Your task to perform on an android device: check google app version Image 0: 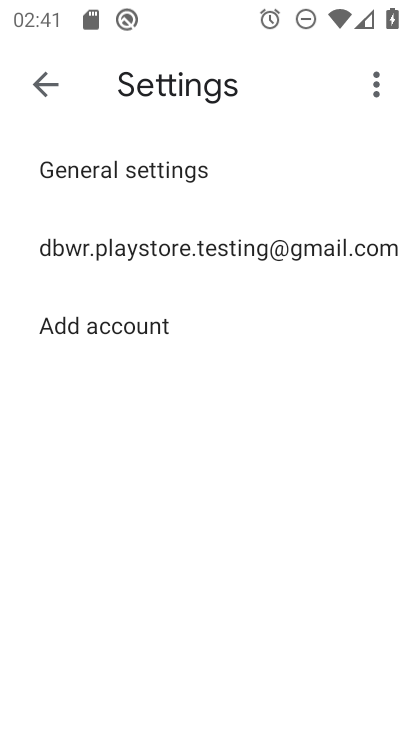
Step 0: press home button
Your task to perform on an android device: check google app version Image 1: 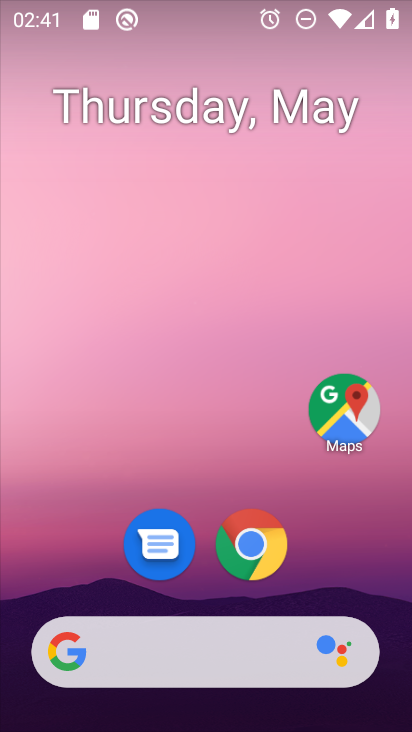
Step 1: drag from (364, 580) to (375, 244)
Your task to perform on an android device: check google app version Image 2: 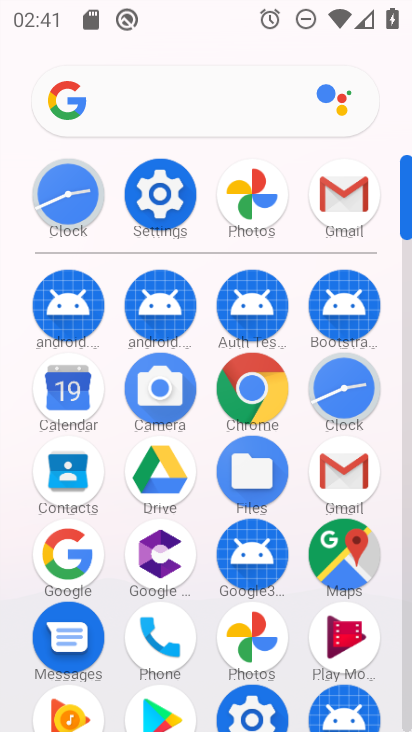
Step 2: drag from (385, 606) to (393, 556)
Your task to perform on an android device: check google app version Image 3: 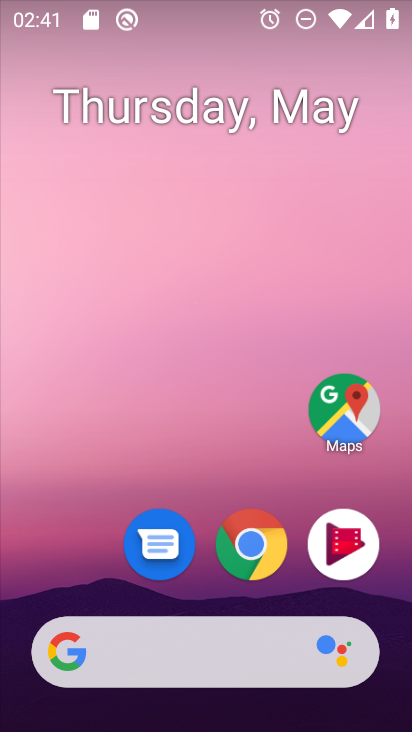
Step 3: drag from (277, 467) to (276, 90)
Your task to perform on an android device: check google app version Image 4: 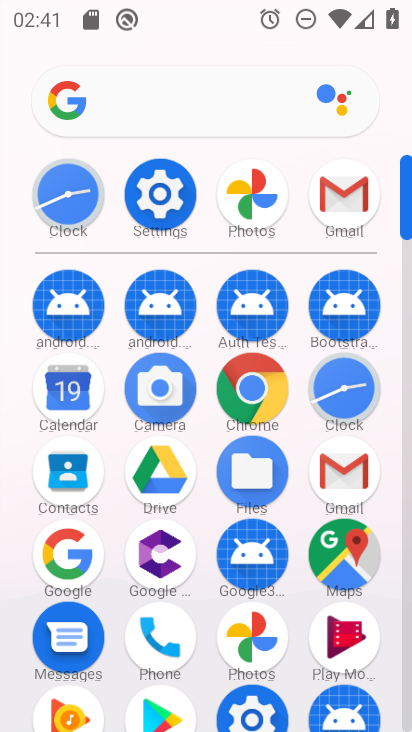
Step 4: click (86, 561)
Your task to perform on an android device: check google app version Image 5: 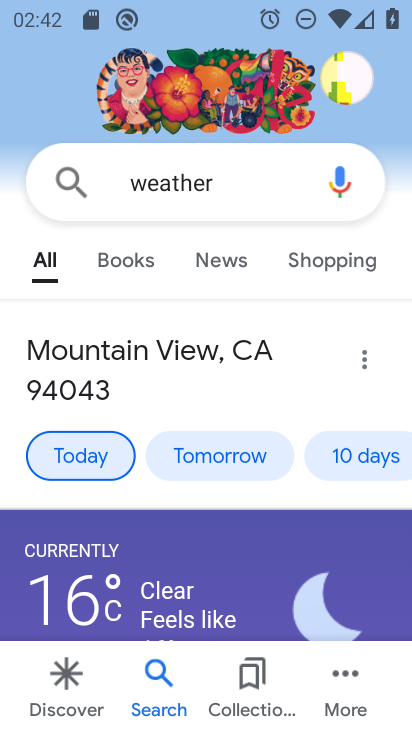
Step 5: click (356, 705)
Your task to perform on an android device: check google app version Image 6: 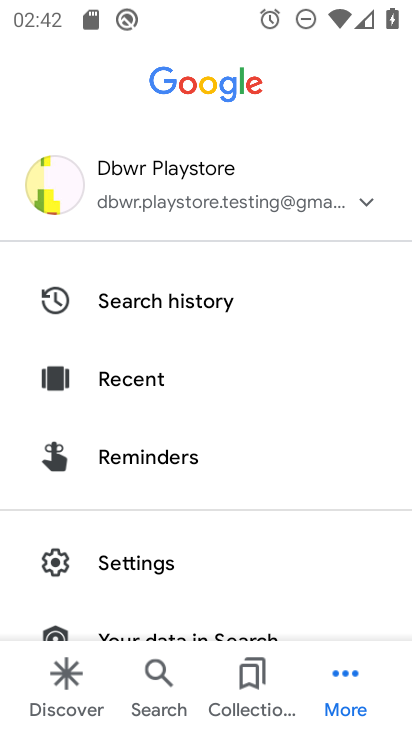
Step 6: drag from (314, 585) to (325, 359)
Your task to perform on an android device: check google app version Image 7: 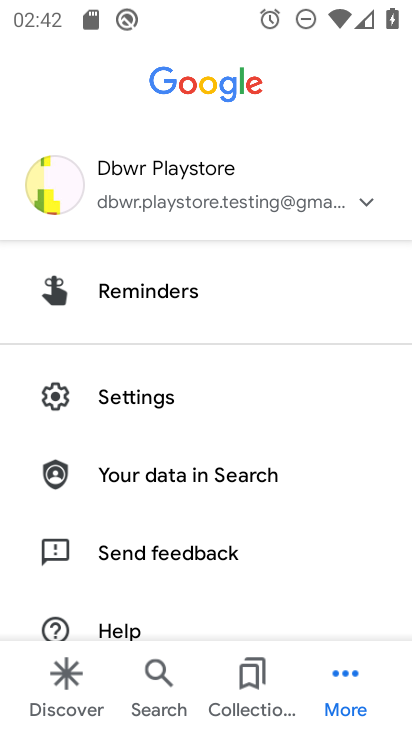
Step 7: drag from (326, 526) to (334, 474)
Your task to perform on an android device: check google app version Image 8: 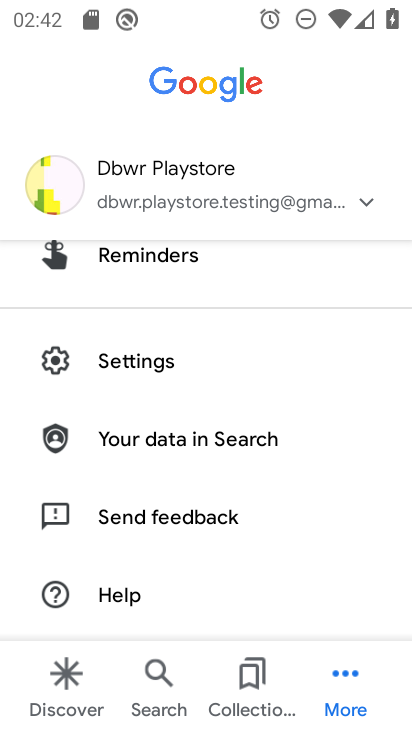
Step 8: drag from (317, 586) to (321, 455)
Your task to perform on an android device: check google app version Image 9: 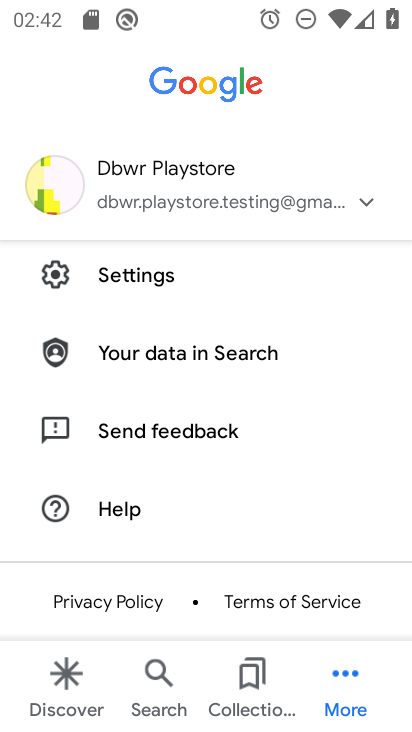
Step 9: click (347, 697)
Your task to perform on an android device: check google app version Image 10: 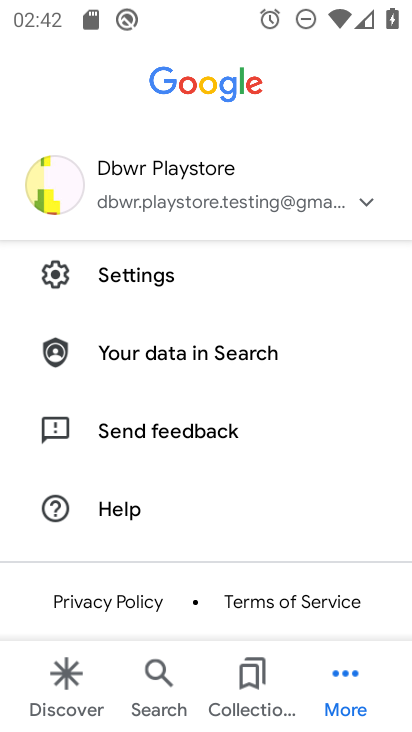
Step 10: click (137, 258)
Your task to perform on an android device: check google app version Image 11: 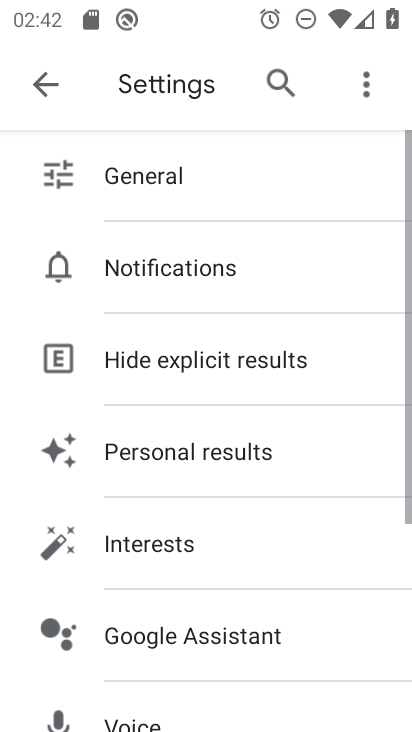
Step 11: drag from (309, 573) to (302, 402)
Your task to perform on an android device: check google app version Image 12: 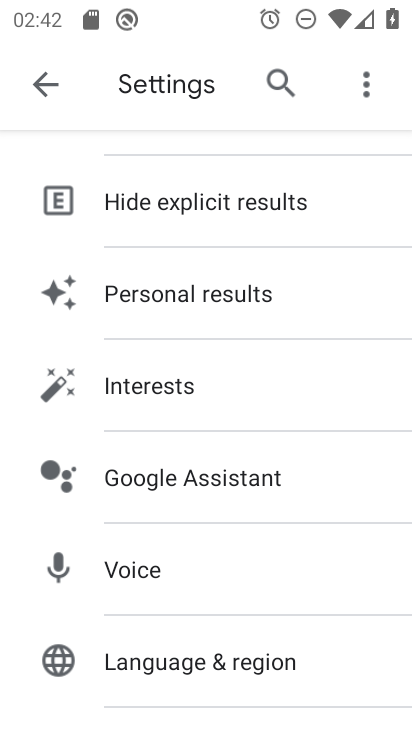
Step 12: drag from (328, 539) to (340, 421)
Your task to perform on an android device: check google app version Image 13: 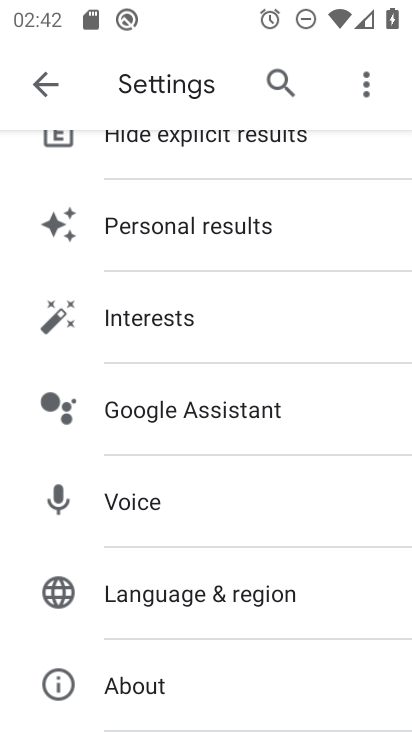
Step 13: drag from (349, 622) to (346, 451)
Your task to perform on an android device: check google app version Image 14: 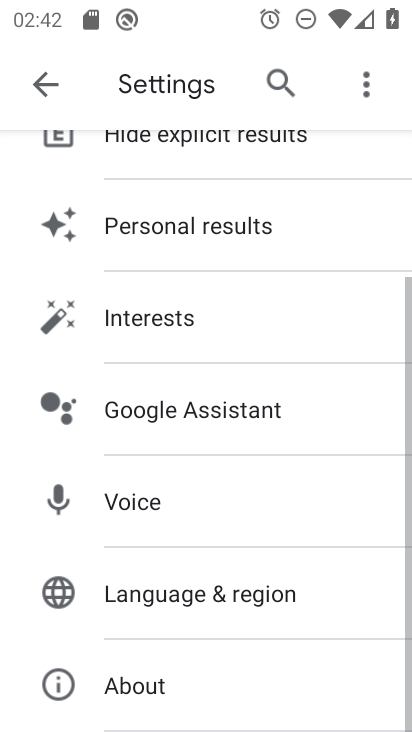
Step 14: click (294, 681)
Your task to perform on an android device: check google app version Image 15: 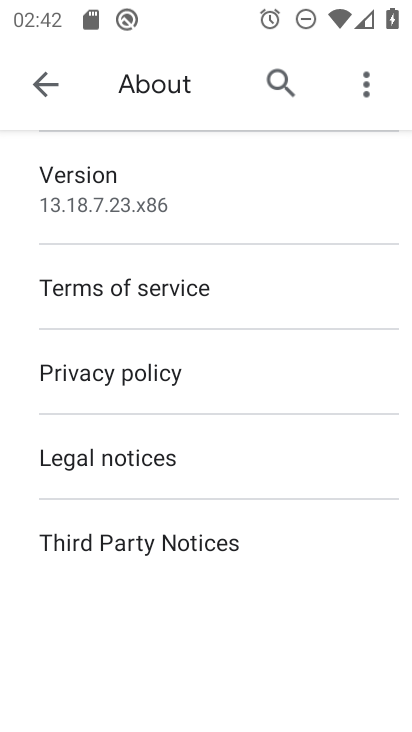
Step 15: task complete